Your task to perform on an android device: add a label to a message in the gmail app Image 0: 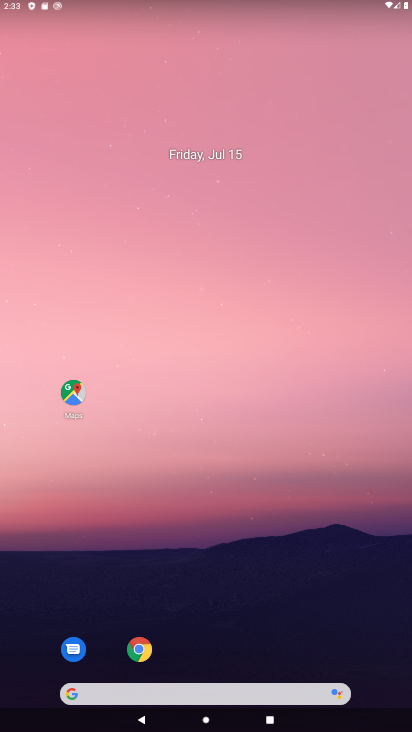
Step 0: drag from (353, 706) to (283, 15)
Your task to perform on an android device: add a label to a message in the gmail app Image 1: 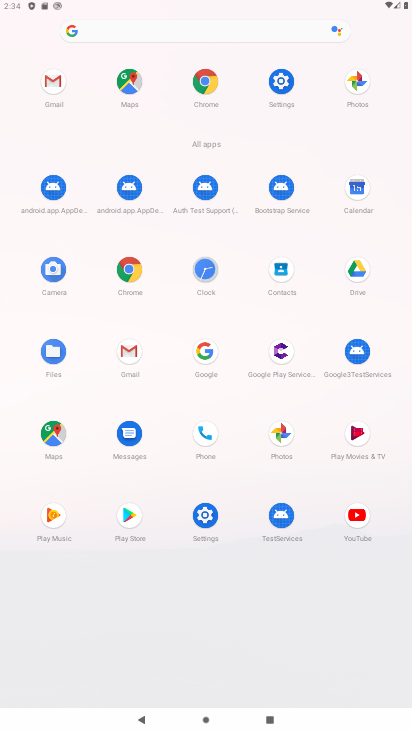
Step 1: click (124, 356)
Your task to perform on an android device: add a label to a message in the gmail app Image 2: 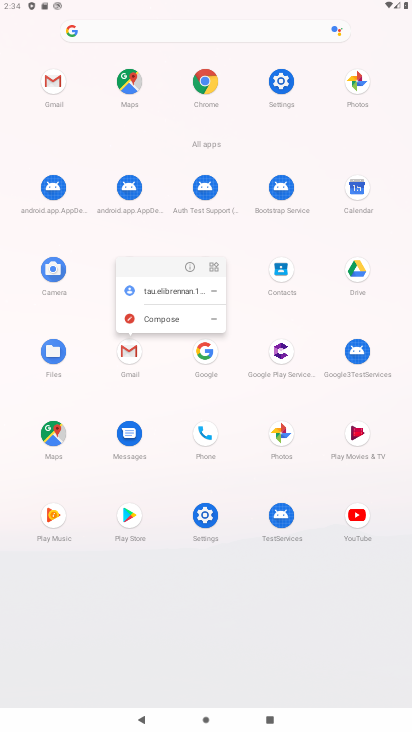
Step 2: click (130, 359)
Your task to perform on an android device: add a label to a message in the gmail app Image 3: 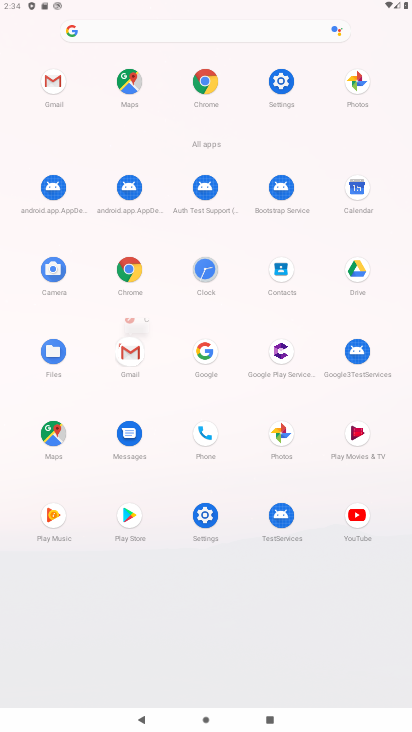
Step 3: click (128, 366)
Your task to perform on an android device: add a label to a message in the gmail app Image 4: 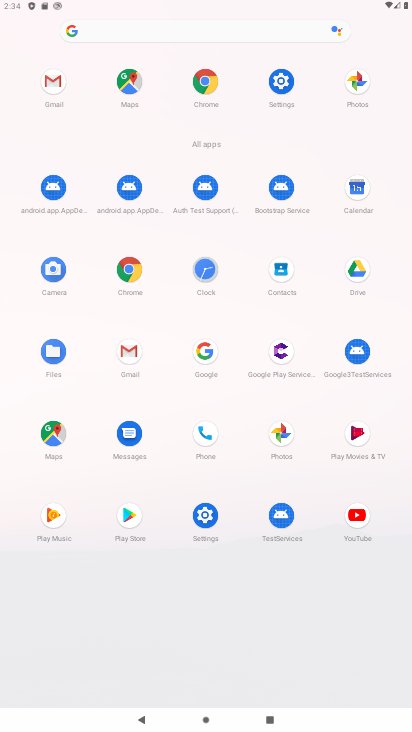
Step 4: click (137, 339)
Your task to perform on an android device: add a label to a message in the gmail app Image 5: 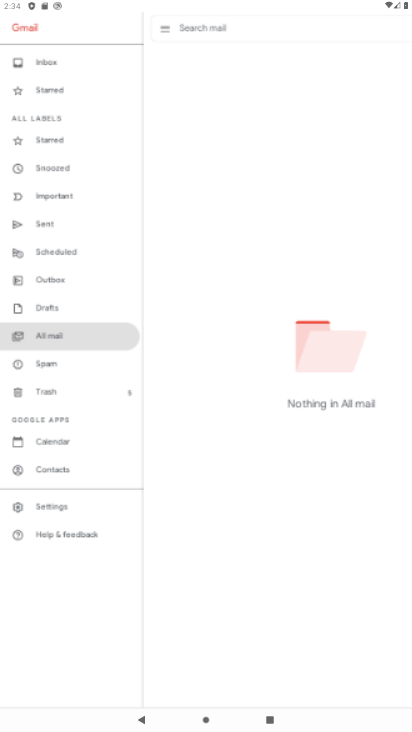
Step 5: click (137, 339)
Your task to perform on an android device: add a label to a message in the gmail app Image 6: 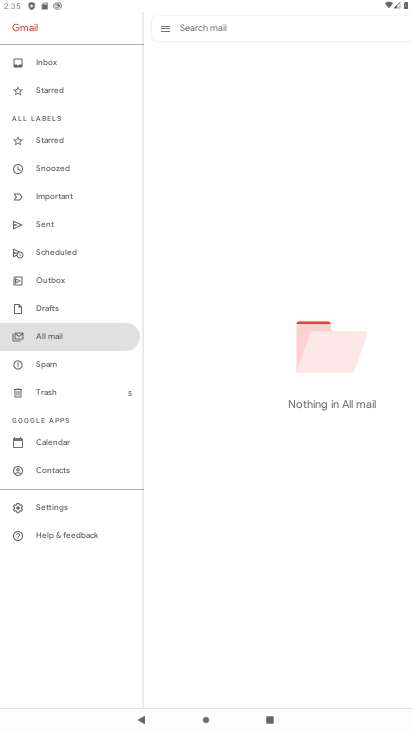
Step 6: click (56, 326)
Your task to perform on an android device: add a label to a message in the gmail app Image 7: 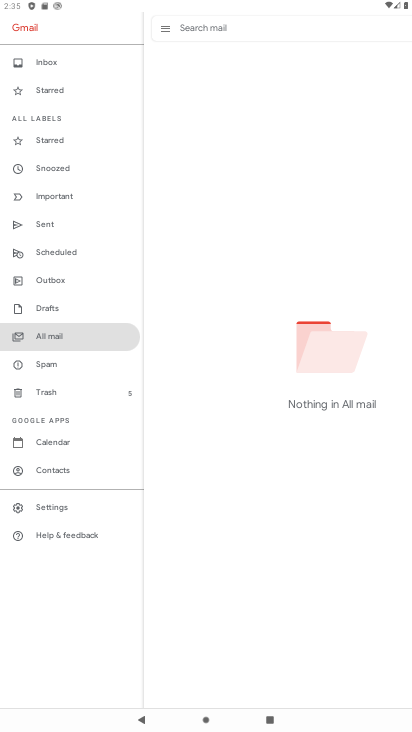
Step 7: click (56, 326)
Your task to perform on an android device: add a label to a message in the gmail app Image 8: 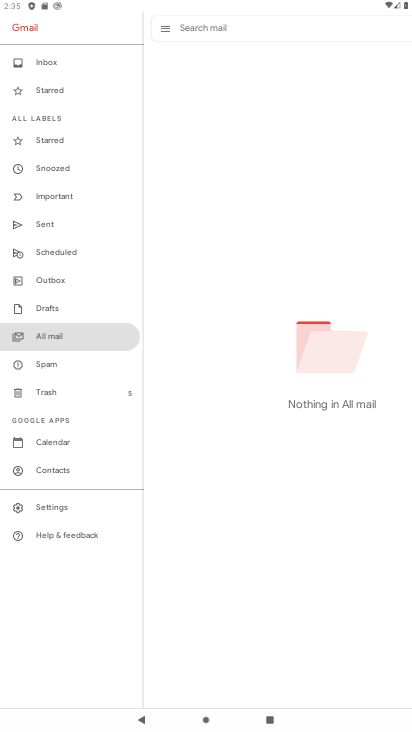
Step 8: click (61, 324)
Your task to perform on an android device: add a label to a message in the gmail app Image 9: 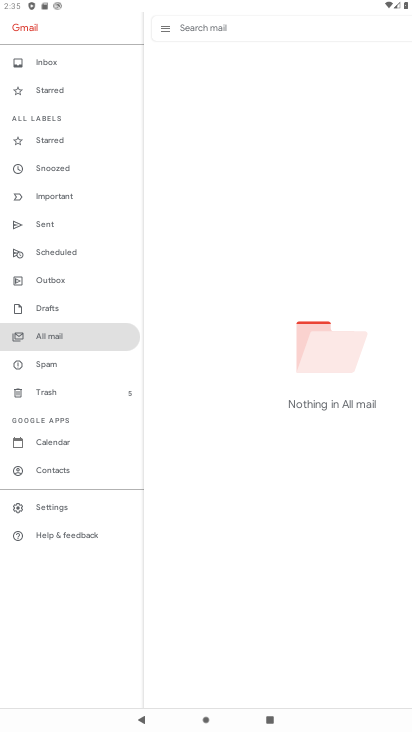
Step 9: click (61, 324)
Your task to perform on an android device: add a label to a message in the gmail app Image 10: 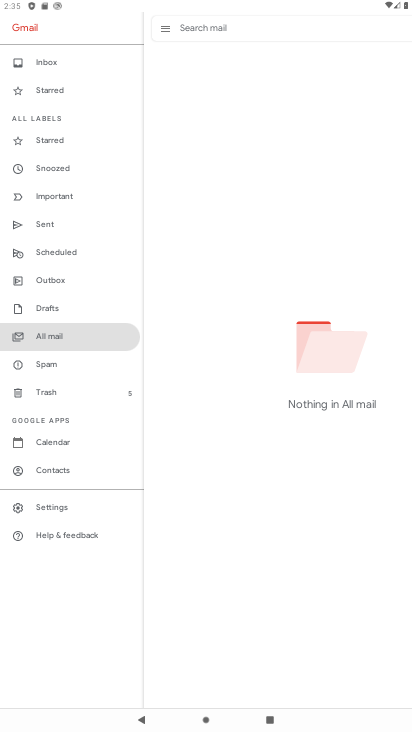
Step 10: task complete